Your task to perform on an android device: change your default location settings in chrome Image 0: 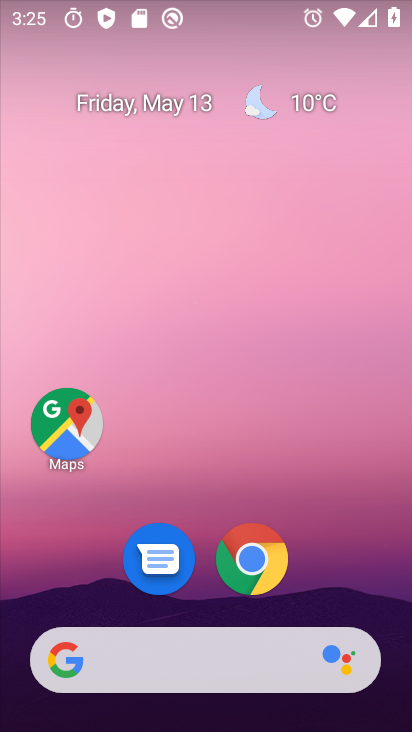
Step 0: click (278, 558)
Your task to perform on an android device: change your default location settings in chrome Image 1: 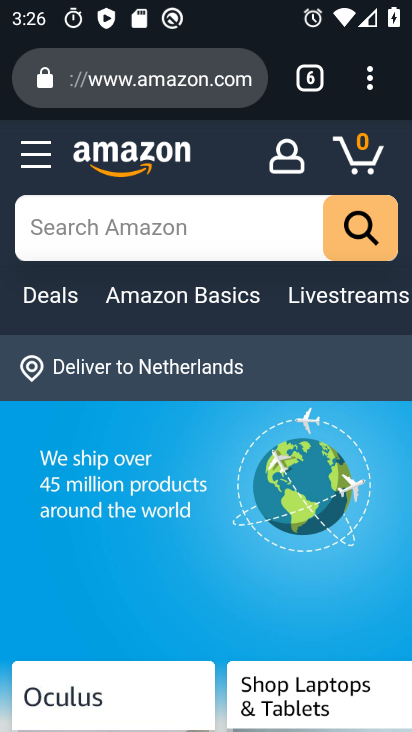
Step 1: click (361, 91)
Your task to perform on an android device: change your default location settings in chrome Image 2: 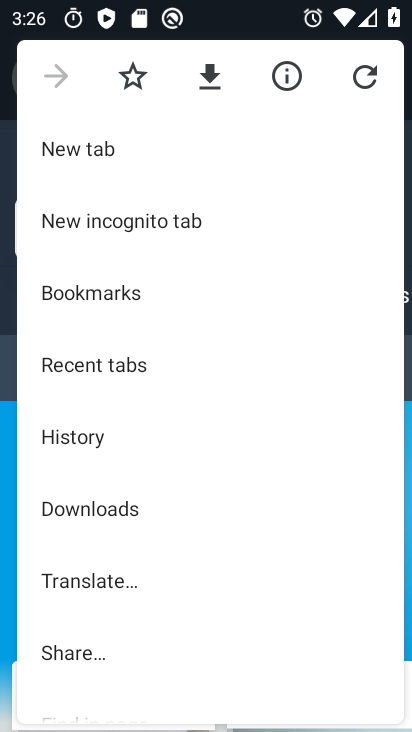
Step 2: drag from (201, 632) to (203, 335)
Your task to perform on an android device: change your default location settings in chrome Image 3: 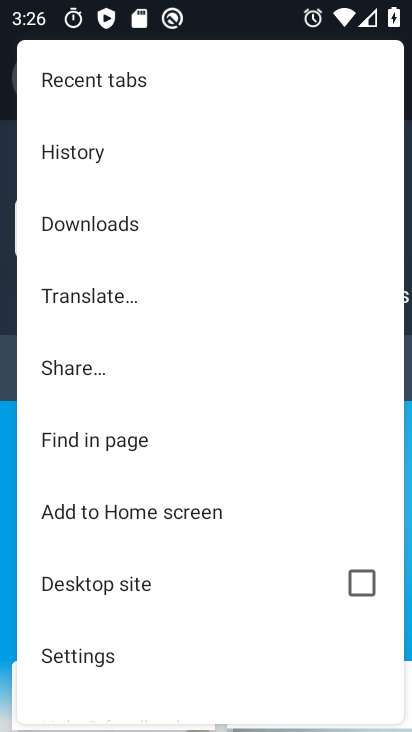
Step 3: drag from (144, 637) to (143, 372)
Your task to perform on an android device: change your default location settings in chrome Image 4: 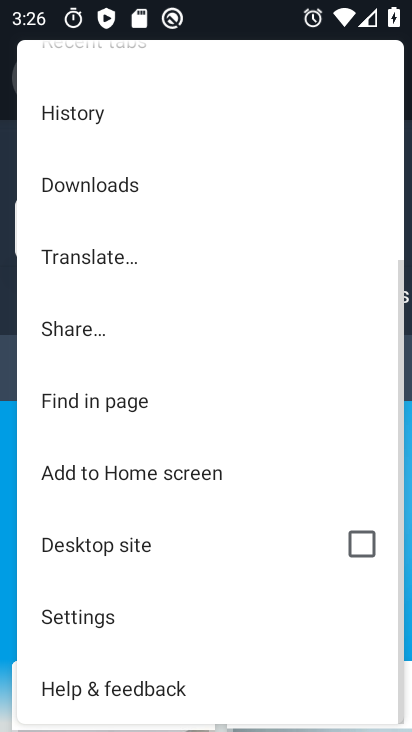
Step 4: click (115, 622)
Your task to perform on an android device: change your default location settings in chrome Image 5: 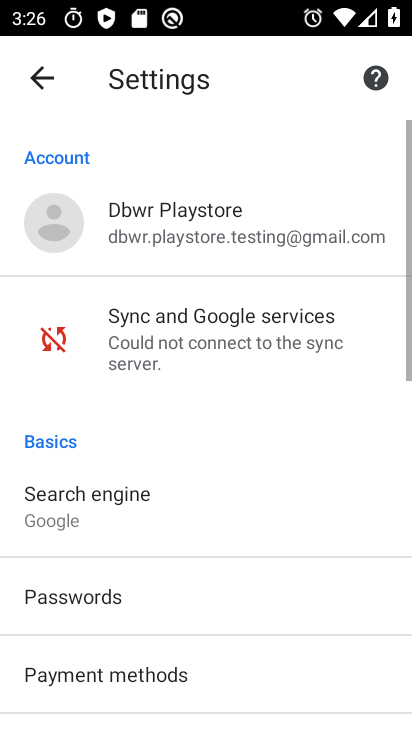
Step 5: drag from (189, 587) to (212, 265)
Your task to perform on an android device: change your default location settings in chrome Image 6: 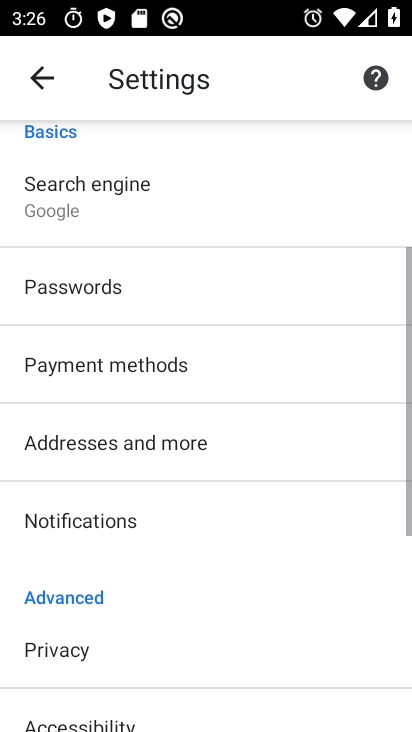
Step 6: drag from (172, 532) to (172, 380)
Your task to perform on an android device: change your default location settings in chrome Image 7: 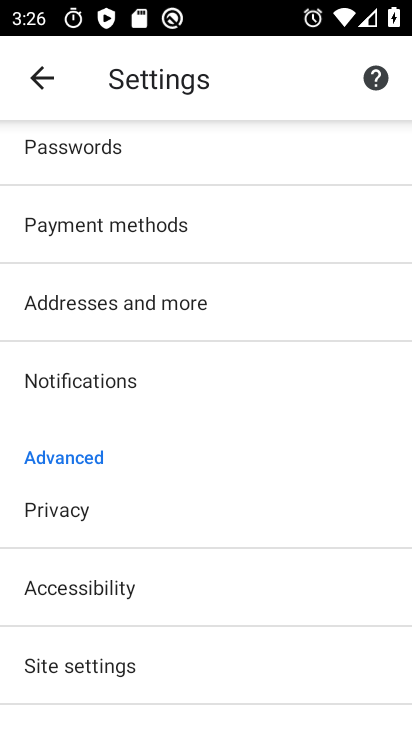
Step 7: click (183, 677)
Your task to perform on an android device: change your default location settings in chrome Image 8: 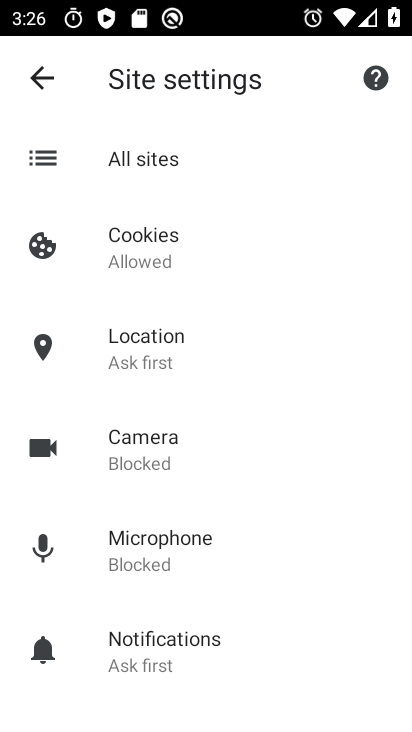
Step 8: click (186, 628)
Your task to perform on an android device: change your default location settings in chrome Image 9: 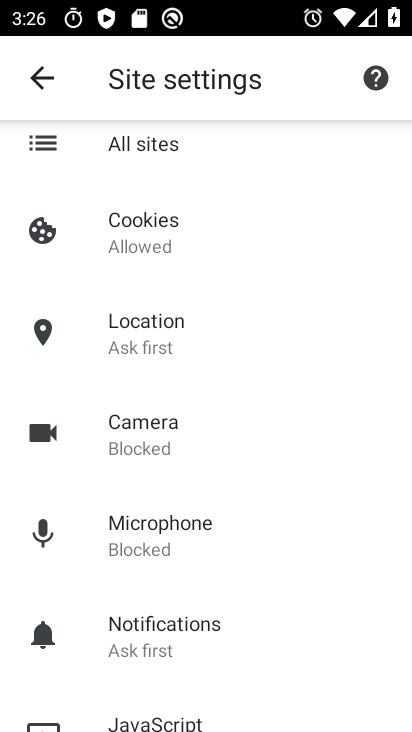
Step 9: click (173, 328)
Your task to perform on an android device: change your default location settings in chrome Image 10: 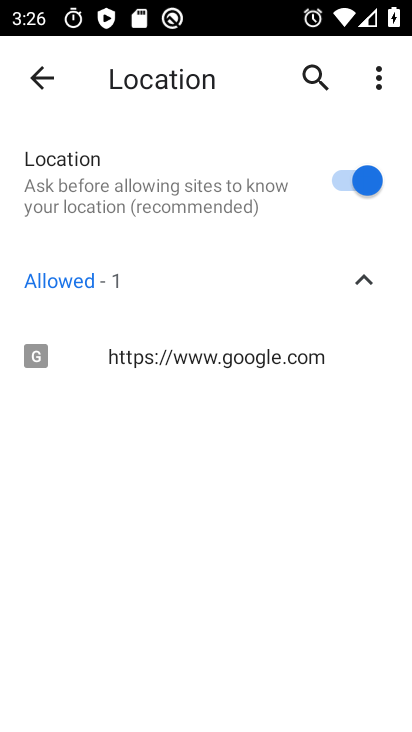
Step 10: click (326, 190)
Your task to perform on an android device: change your default location settings in chrome Image 11: 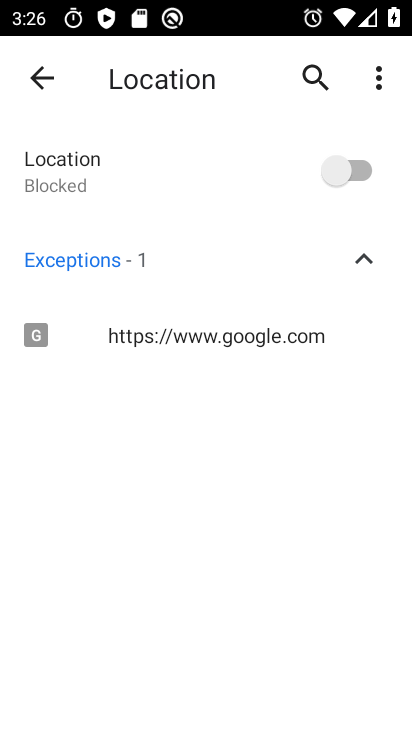
Step 11: task complete